Your task to perform on an android device: Open network settings Image 0: 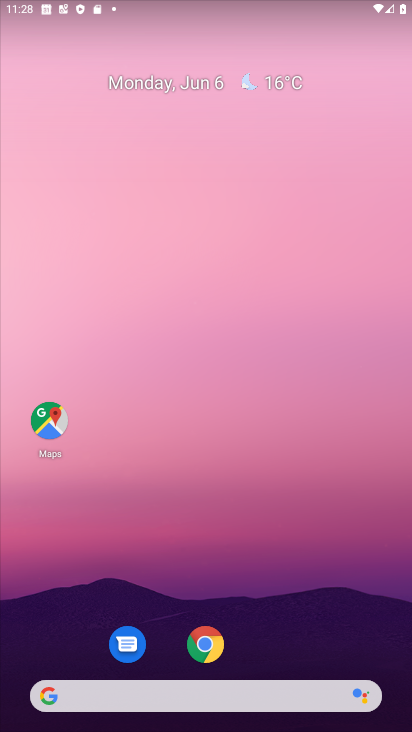
Step 0: drag from (308, 642) to (208, 265)
Your task to perform on an android device: Open network settings Image 1: 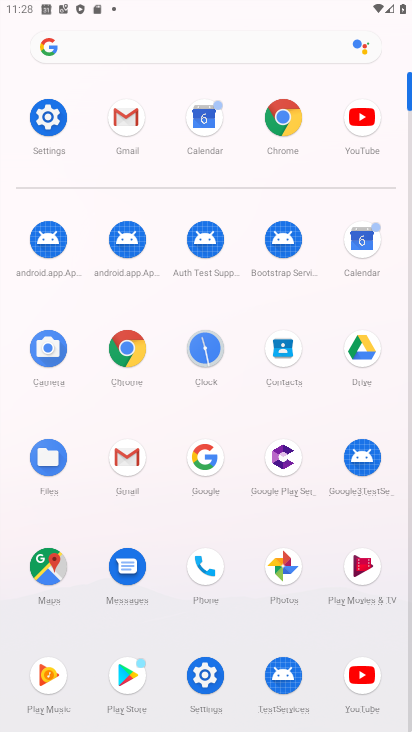
Step 1: click (49, 134)
Your task to perform on an android device: Open network settings Image 2: 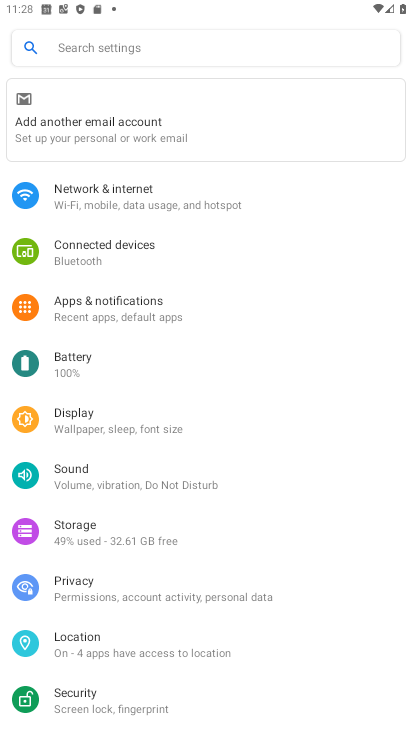
Step 2: click (138, 204)
Your task to perform on an android device: Open network settings Image 3: 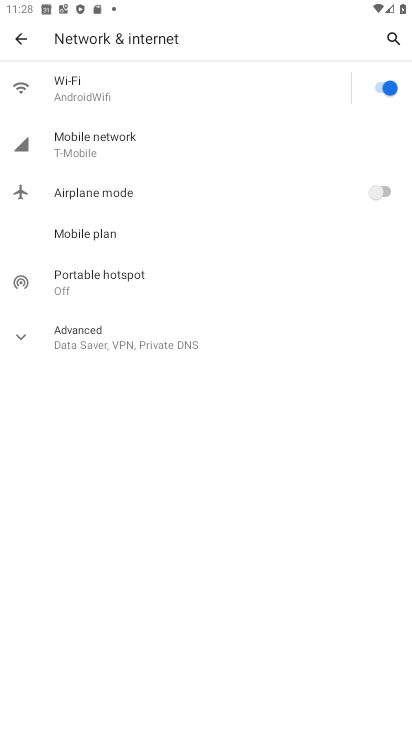
Step 3: task complete